Your task to perform on an android device: turn pop-ups off in chrome Image 0: 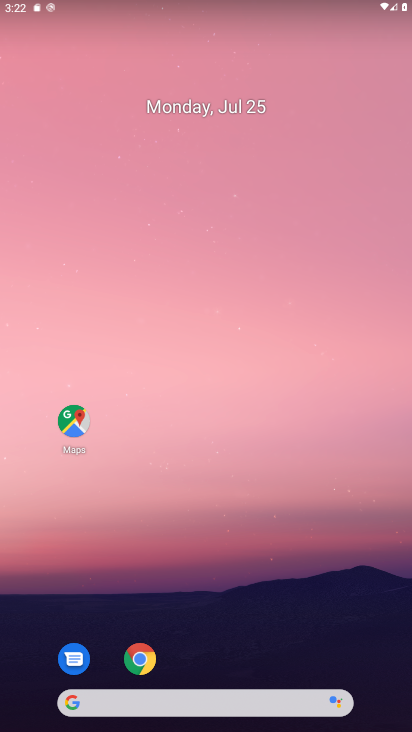
Step 0: click (143, 654)
Your task to perform on an android device: turn pop-ups off in chrome Image 1: 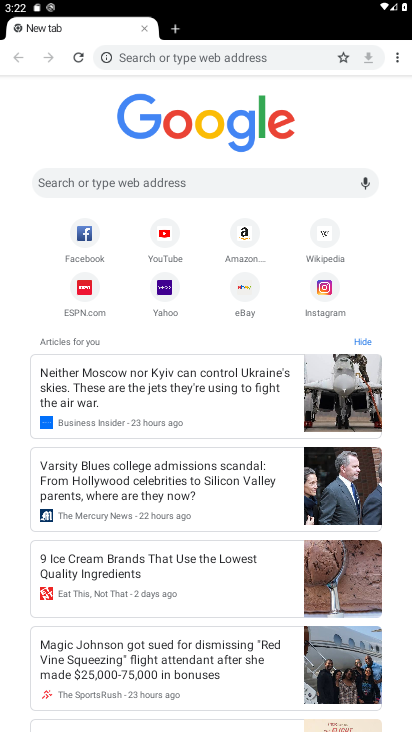
Step 1: click (397, 55)
Your task to perform on an android device: turn pop-ups off in chrome Image 2: 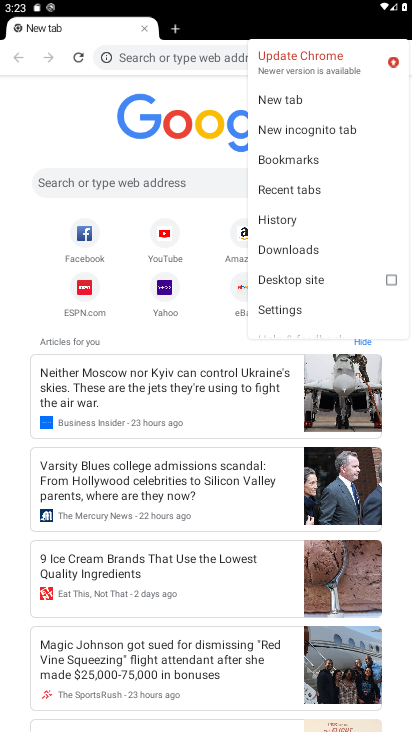
Step 2: click (290, 277)
Your task to perform on an android device: turn pop-ups off in chrome Image 3: 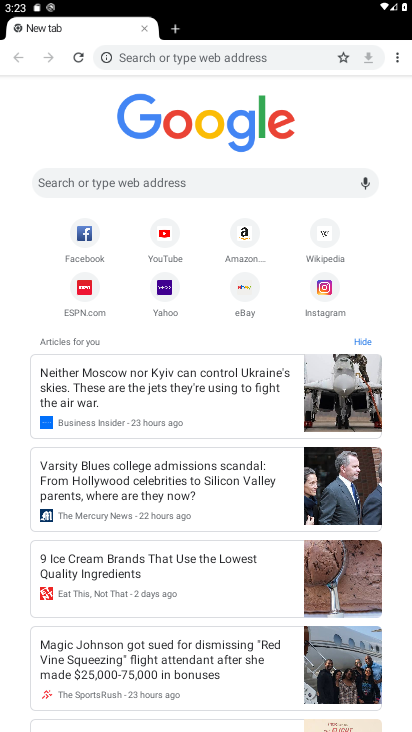
Step 3: click (394, 56)
Your task to perform on an android device: turn pop-ups off in chrome Image 4: 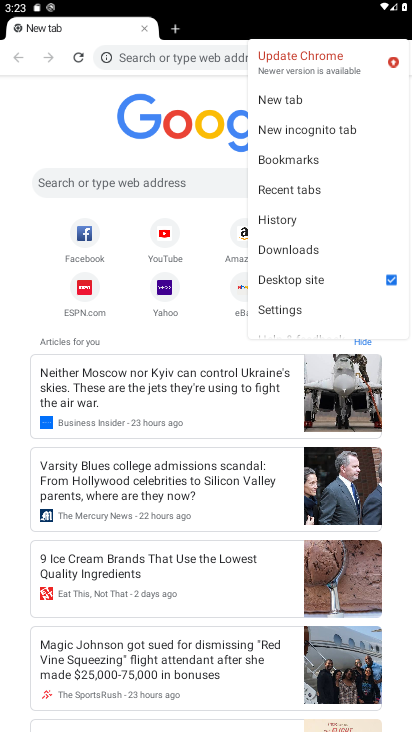
Step 4: click (272, 308)
Your task to perform on an android device: turn pop-ups off in chrome Image 5: 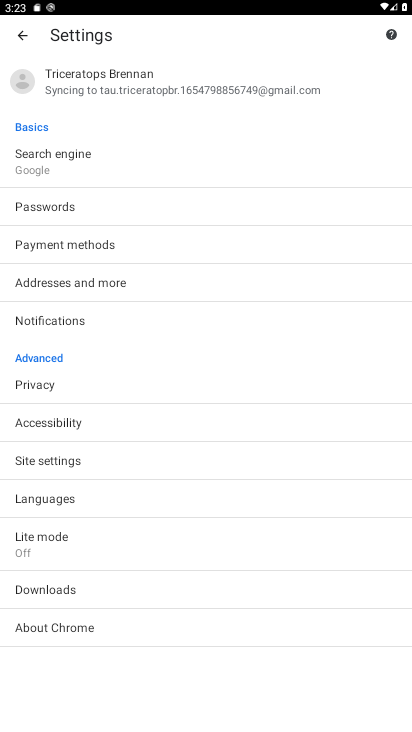
Step 5: click (30, 462)
Your task to perform on an android device: turn pop-ups off in chrome Image 6: 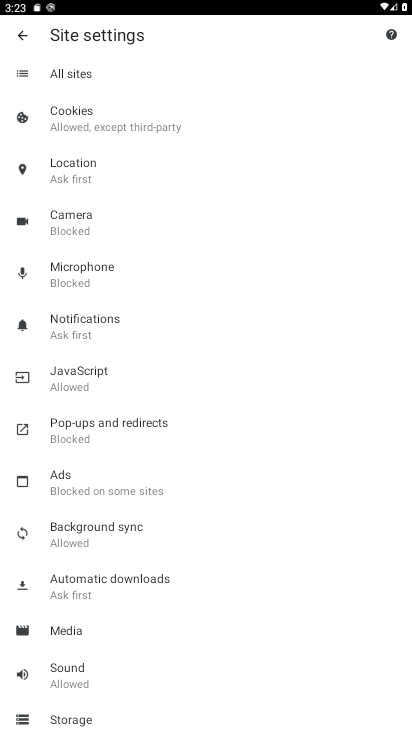
Step 6: click (81, 429)
Your task to perform on an android device: turn pop-ups off in chrome Image 7: 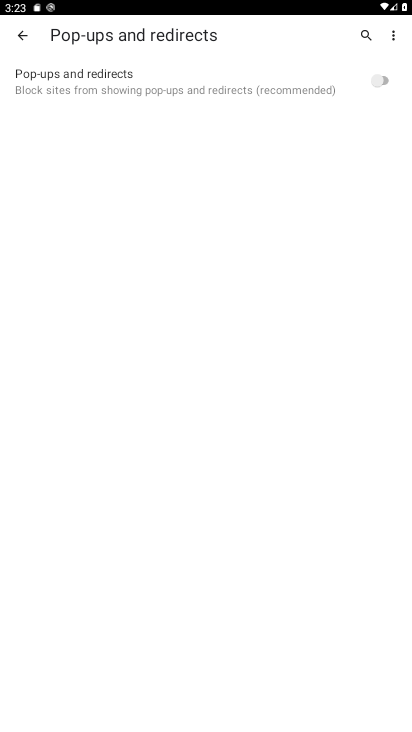
Step 7: task complete